Your task to perform on an android device: Open settings Image 0: 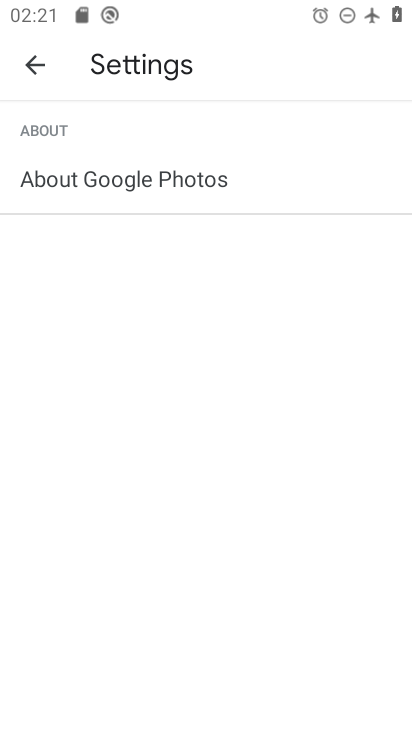
Step 0: press home button
Your task to perform on an android device: Open settings Image 1: 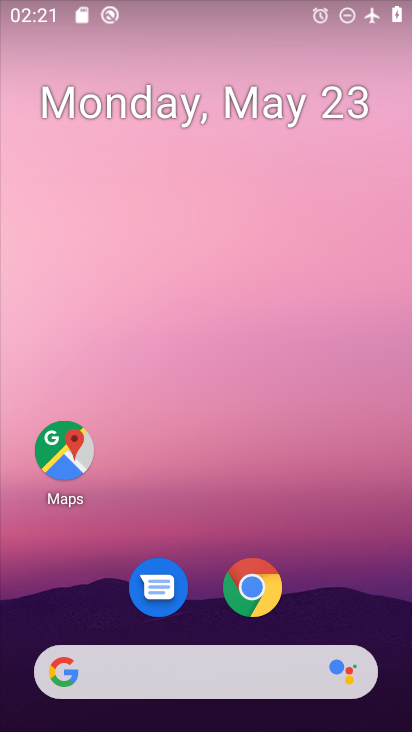
Step 1: drag from (349, 584) to (328, 127)
Your task to perform on an android device: Open settings Image 2: 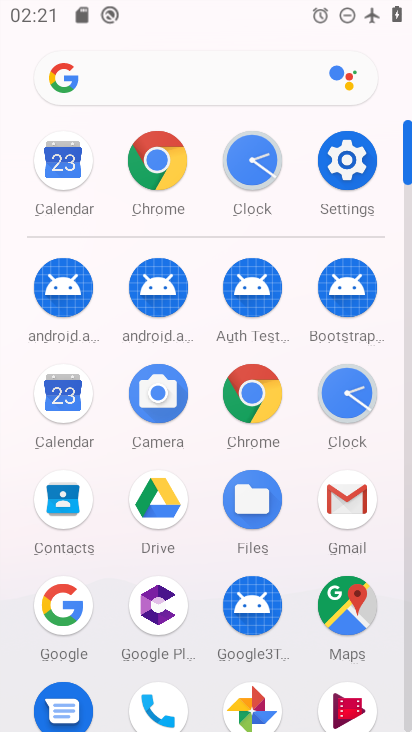
Step 2: click (342, 172)
Your task to perform on an android device: Open settings Image 3: 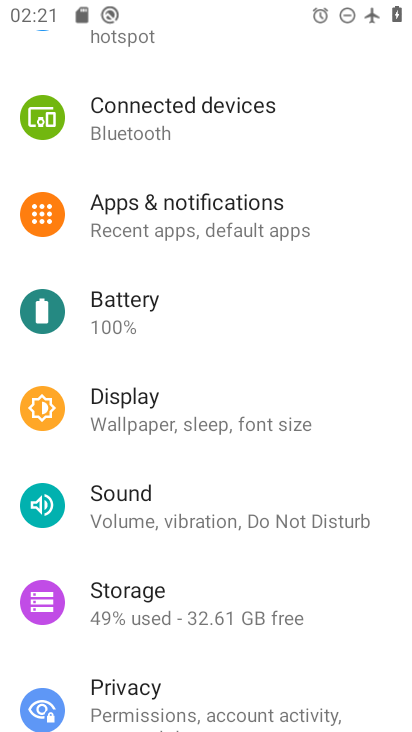
Step 3: task complete